Your task to perform on an android device: turn on bluetooth scan Image 0: 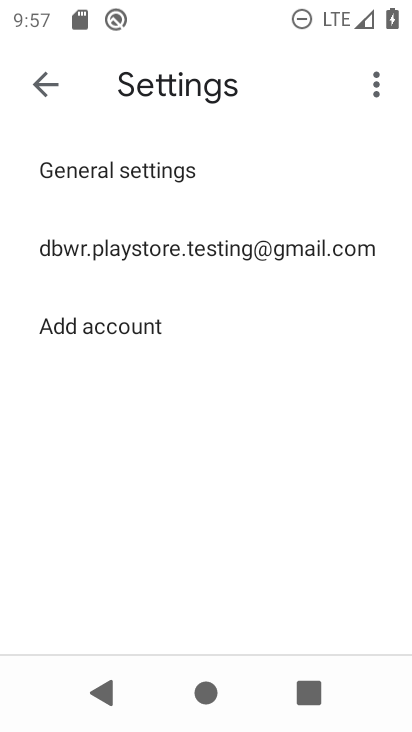
Step 0: press home button
Your task to perform on an android device: turn on bluetooth scan Image 1: 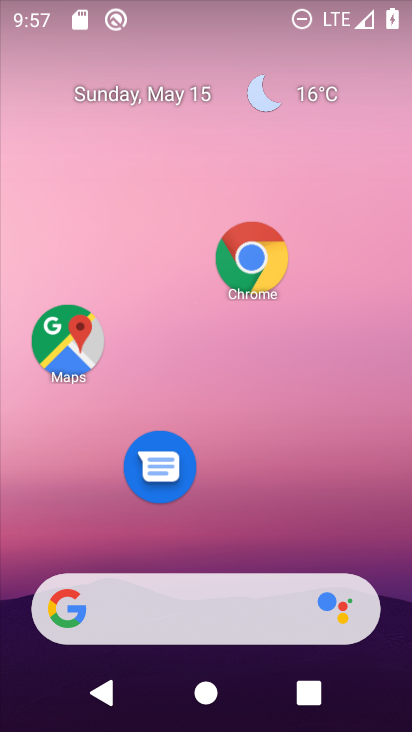
Step 1: drag from (289, 538) to (234, 36)
Your task to perform on an android device: turn on bluetooth scan Image 2: 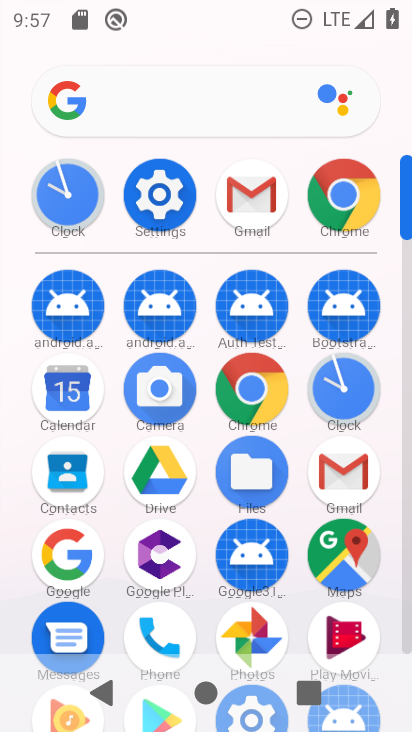
Step 2: click (162, 209)
Your task to perform on an android device: turn on bluetooth scan Image 3: 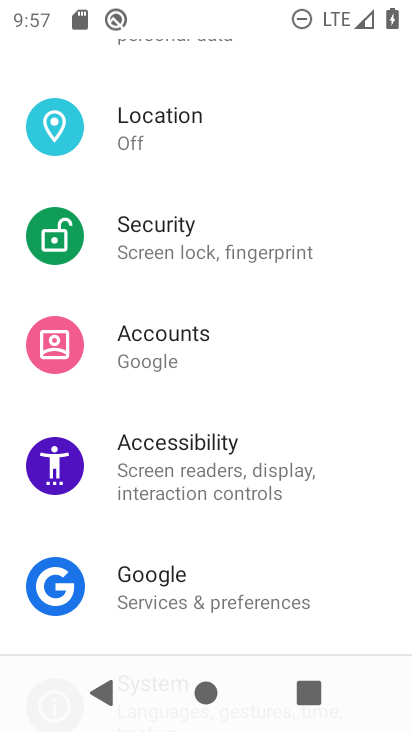
Step 3: click (140, 142)
Your task to perform on an android device: turn on bluetooth scan Image 4: 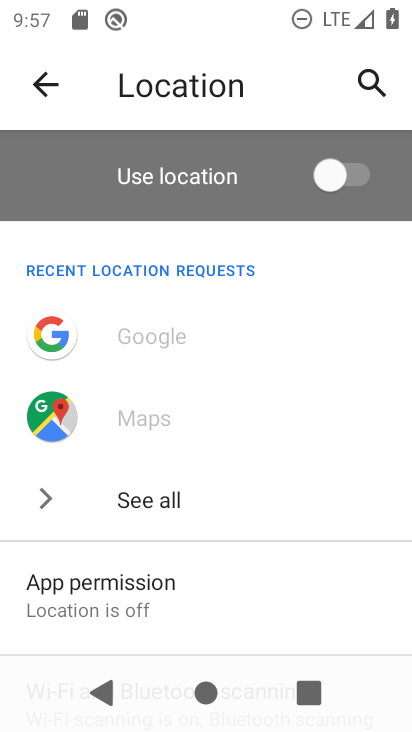
Step 4: drag from (192, 605) to (257, 64)
Your task to perform on an android device: turn on bluetooth scan Image 5: 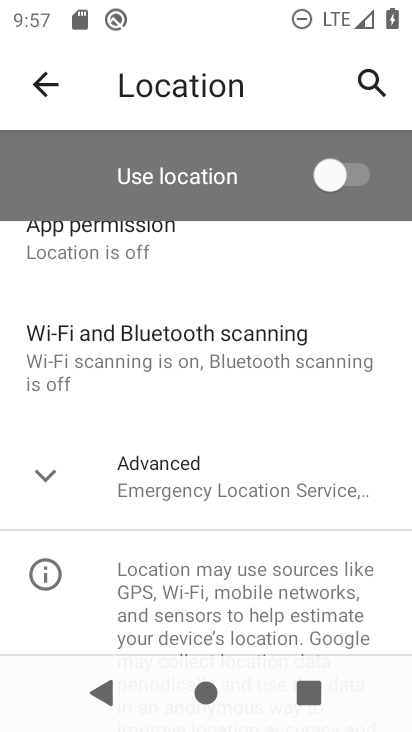
Step 5: click (205, 350)
Your task to perform on an android device: turn on bluetooth scan Image 6: 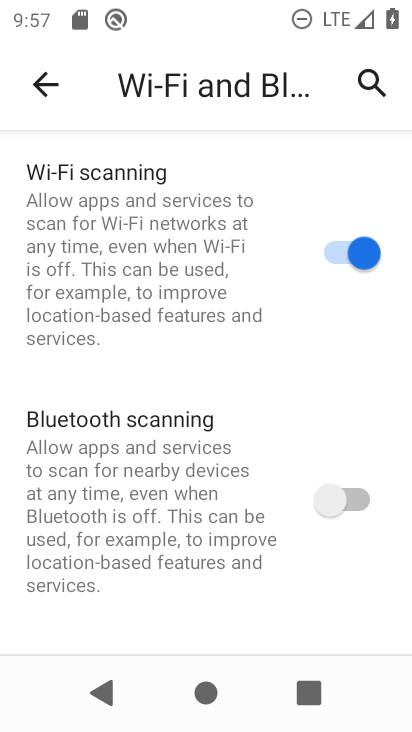
Step 6: click (346, 493)
Your task to perform on an android device: turn on bluetooth scan Image 7: 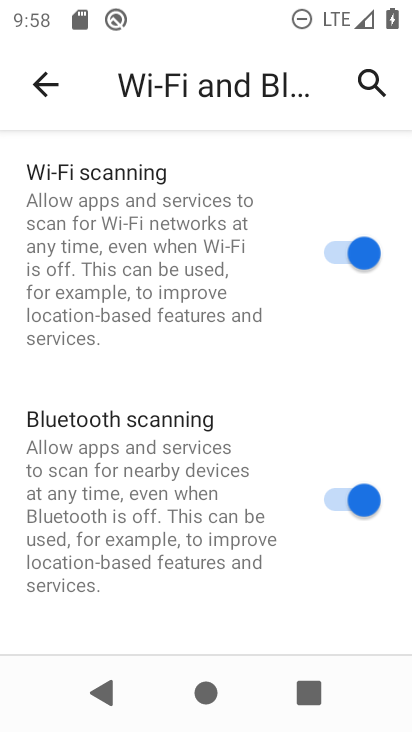
Step 7: task complete